Your task to perform on an android device: change text size in settings app Image 0: 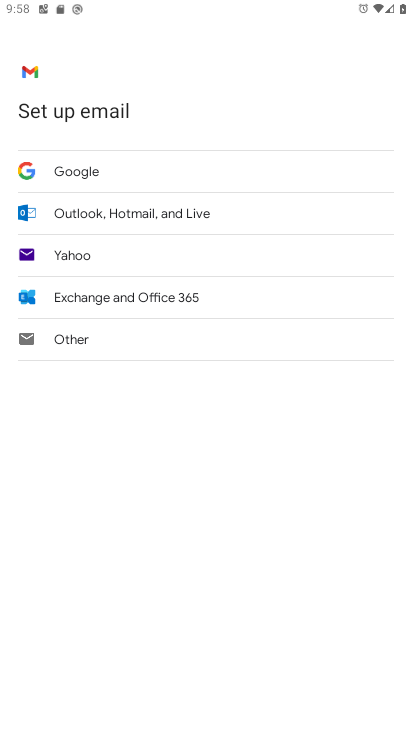
Step 0: press home button
Your task to perform on an android device: change text size in settings app Image 1: 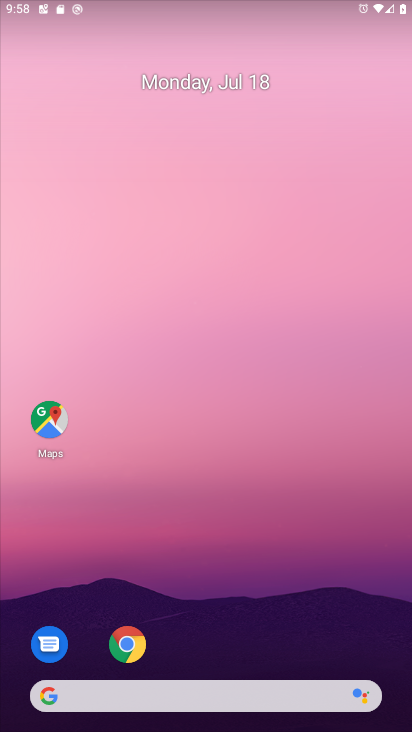
Step 1: drag from (202, 663) to (212, 115)
Your task to perform on an android device: change text size in settings app Image 2: 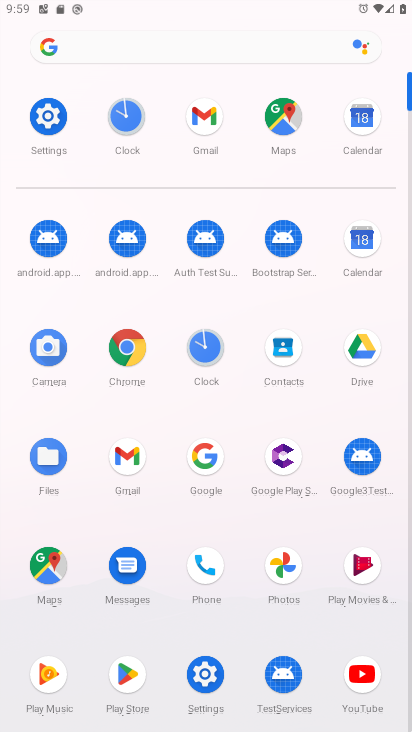
Step 2: click (218, 658)
Your task to perform on an android device: change text size in settings app Image 3: 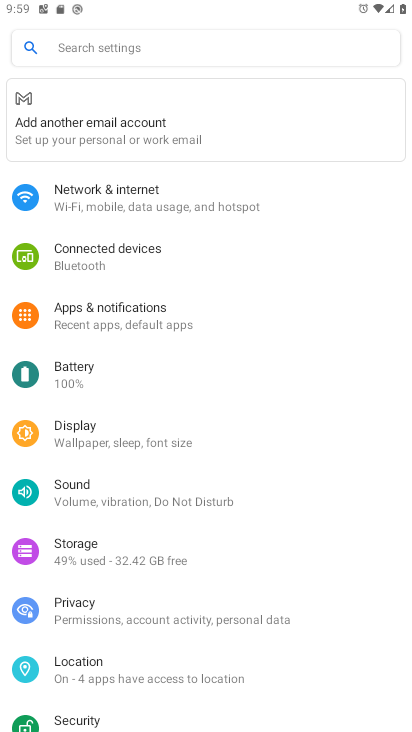
Step 3: task complete